Your task to perform on an android device: Open calendar and show me the fourth week of next month Image 0: 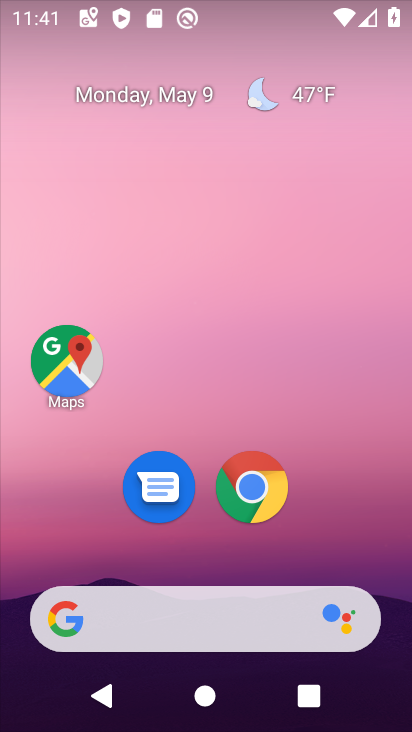
Step 0: drag from (212, 545) to (203, 147)
Your task to perform on an android device: Open calendar and show me the fourth week of next month Image 1: 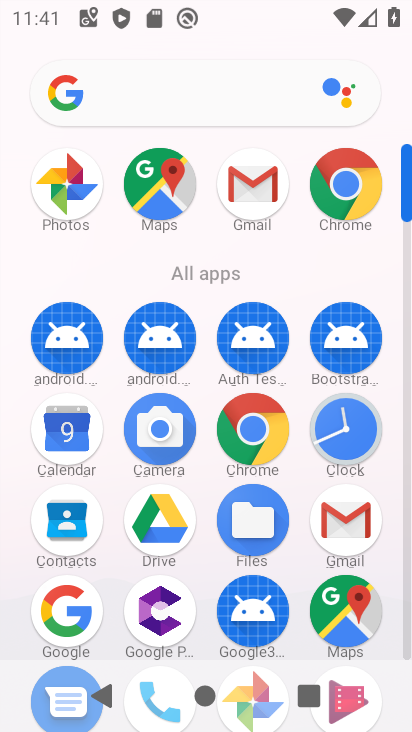
Step 1: click (68, 424)
Your task to perform on an android device: Open calendar and show me the fourth week of next month Image 2: 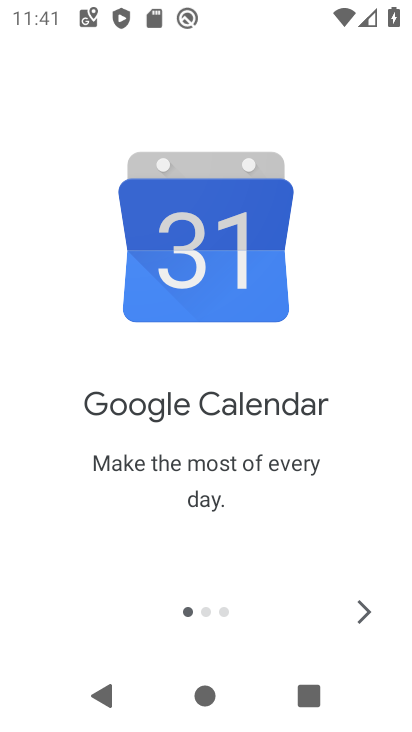
Step 2: click (355, 604)
Your task to perform on an android device: Open calendar and show me the fourth week of next month Image 3: 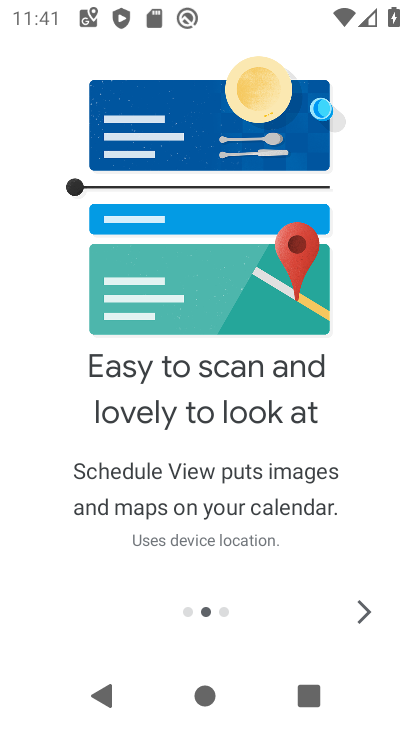
Step 3: click (352, 601)
Your task to perform on an android device: Open calendar and show me the fourth week of next month Image 4: 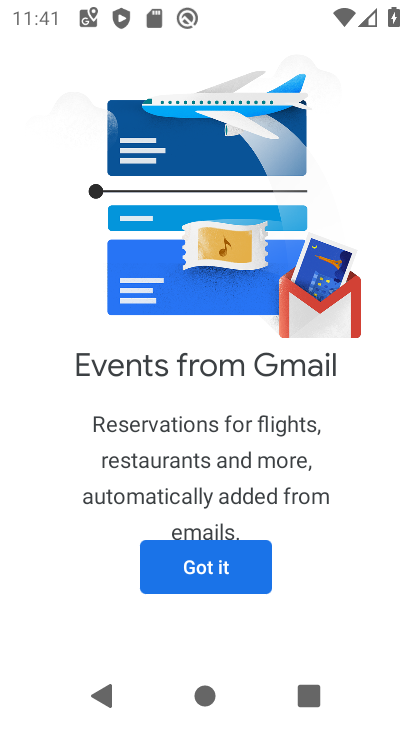
Step 4: click (207, 570)
Your task to perform on an android device: Open calendar and show me the fourth week of next month Image 5: 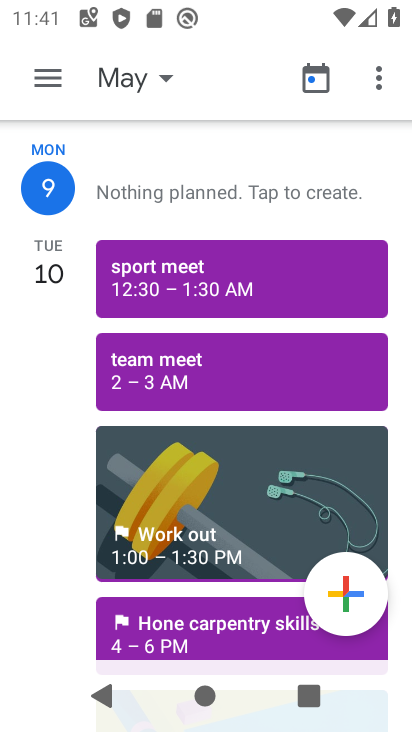
Step 5: drag from (66, 641) to (67, 490)
Your task to perform on an android device: Open calendar and show me the fourth week of next month Image 6: 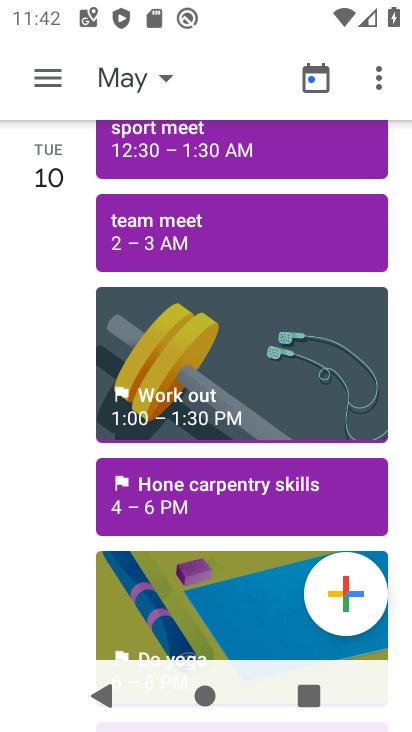
Step 6: drag from (46, 566) to (89, 129)
Your task to perform on an android device: Open calendar and show me the fourth week of next month Image 7: 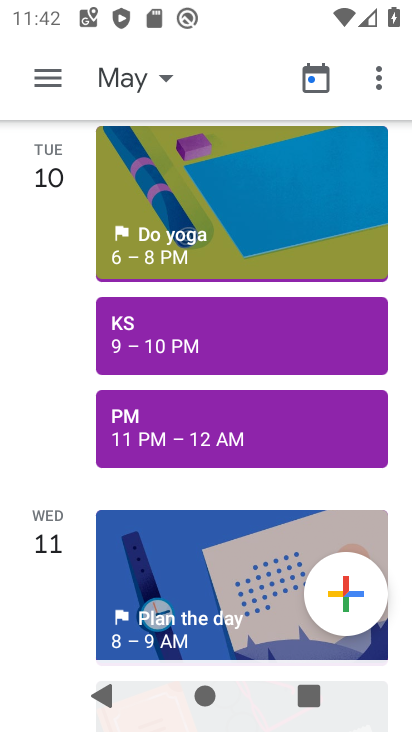
Step 7: click (165, 78)
Your task to perform on an android device: Open calendar and show me the fourth week of next month Image 8: 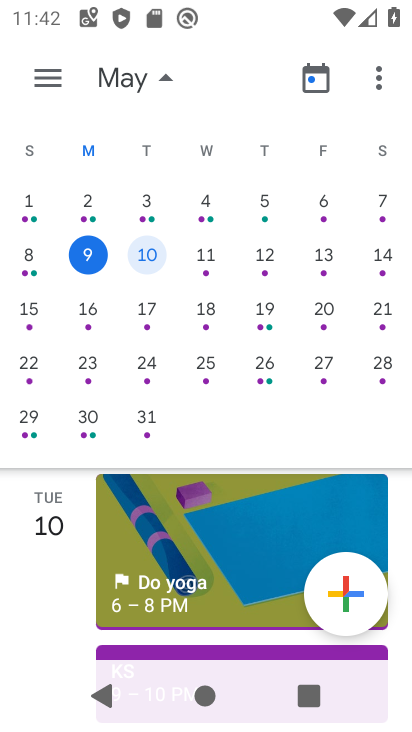
Step 8: click (166, 76)
Your task to perform on an android device: Open calendar and show me the fourth week of next month Image 9: 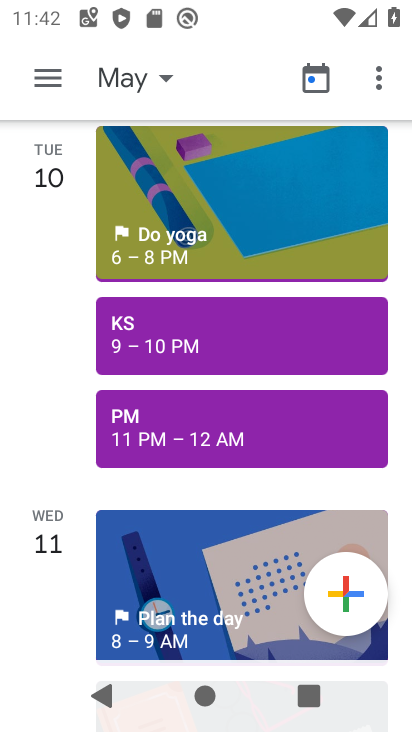
Step 9: click (42, 69)
Your task to perform on an android device: Open calendar and show me the fourth week of next month Image 10: 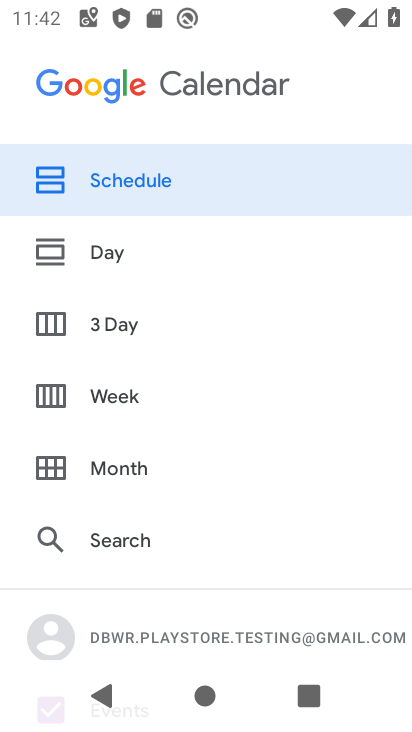
Step 10: click (78, 394)
Your task to perform on an android device: Open calendar and show me the fourth week of next month Image 11: 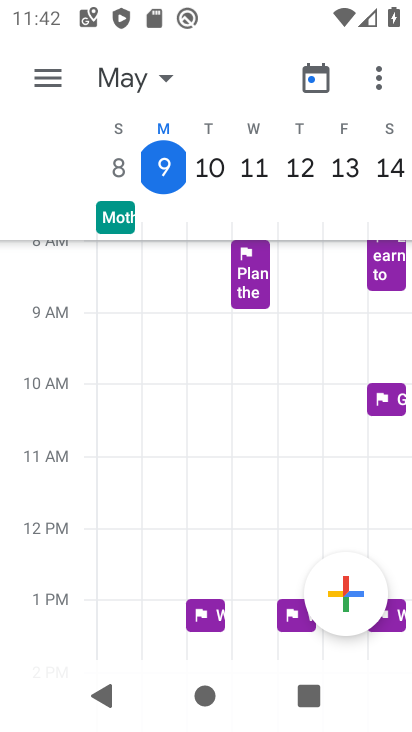
Step 11: drag from (396, 159) to (95, 153)
Your task to perform on an android device: Open calendar and show me the fourth week of next month Image 12: 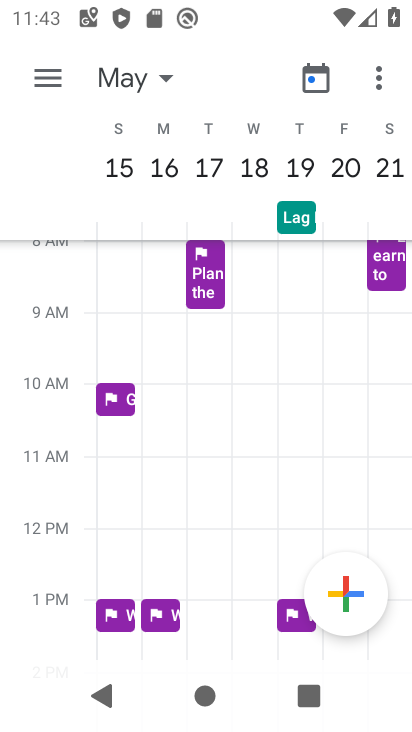
Step 12: drag from (390, 161) to (127, 159)
Your task to perform on an android device: Open calendar and show me the fourth week of next month Image 13: 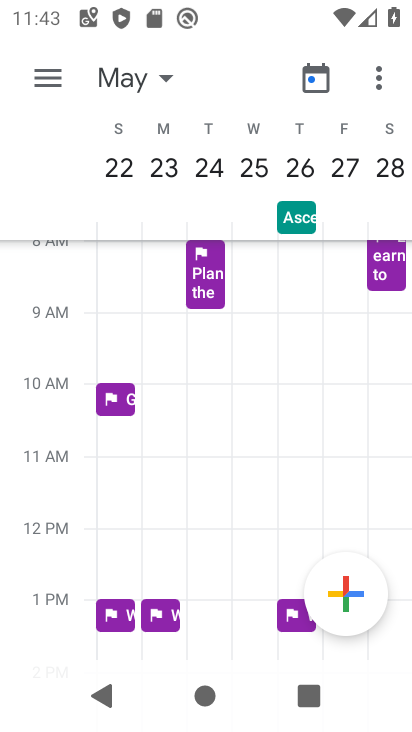
Step 13: drag from (387, 162) to (53, 153)
Your task to perform on an android device: Open calendar and show me the fourth week of next month Image 14: 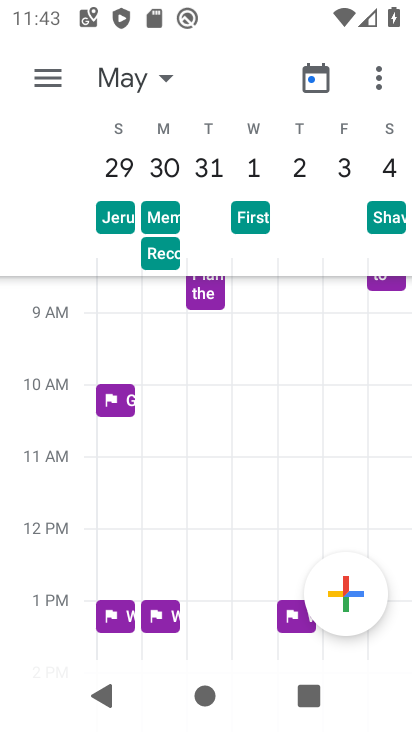
Step 14: drag from (379, 168) to (84, 169)
Your task to perform on an android device: Open calendar and show me the fourth week of next month Image 15: 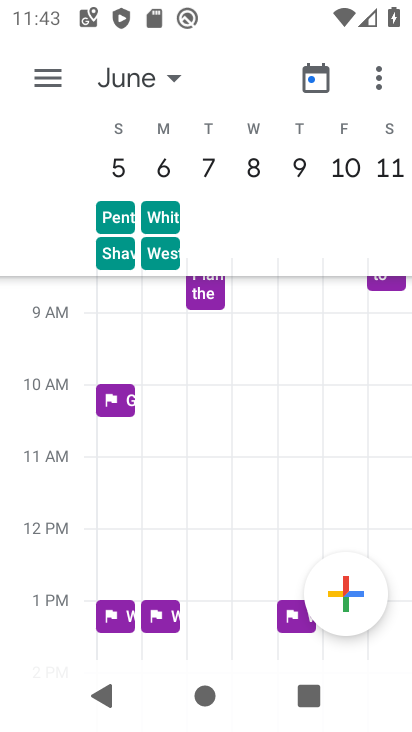
Step 15: drag from (385, 168) to (76, 172)
Your task to perform on an android device: Open calendar and show me the fourth week of next month Image 16: 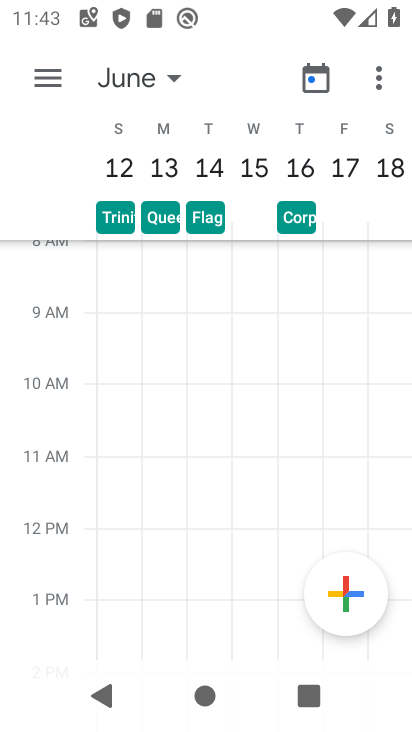
Step 16: drag from (399, 163) to (18, 165)
Your task to perform on an android device: Open calendar and show me the fourth week of next month Image 17: 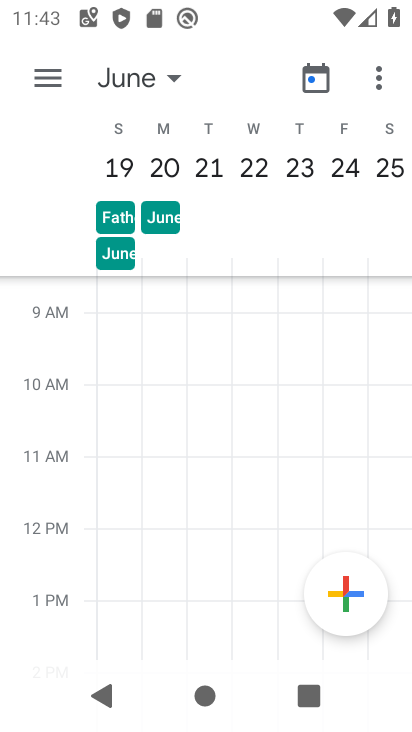
Step 17: click (110, 157)
Your task to perform on an android device: Open calendar and show me the fourth week of next month Image 18: 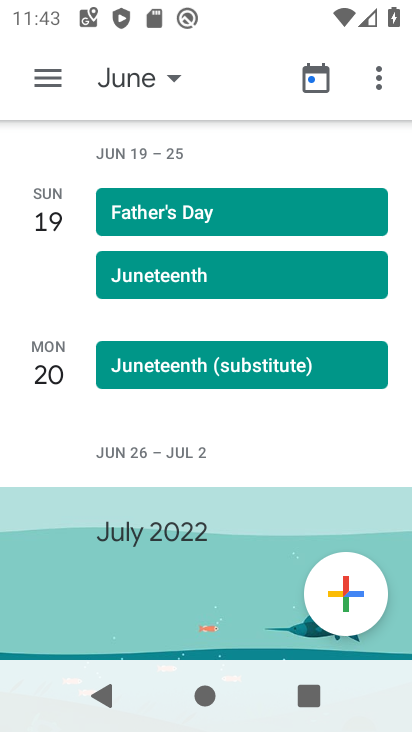
Step 18: task complete